Your task to perform on an android device: find photos in the google photos app Image 0: 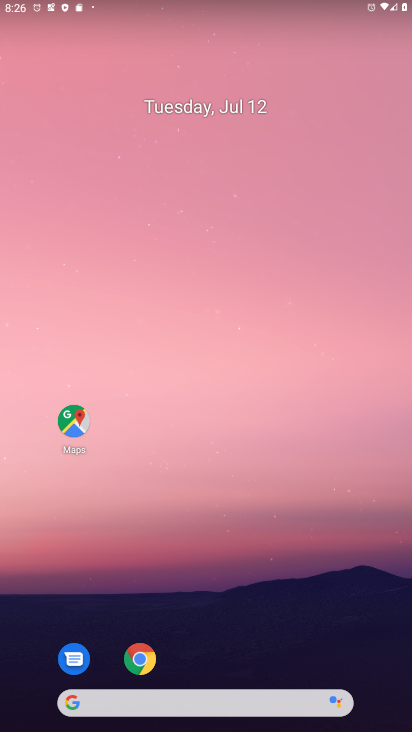
Step 0: drag from (193, 705) to (277, 160)
Your task to perform on an android device: find photos in the google photos app Image 1: 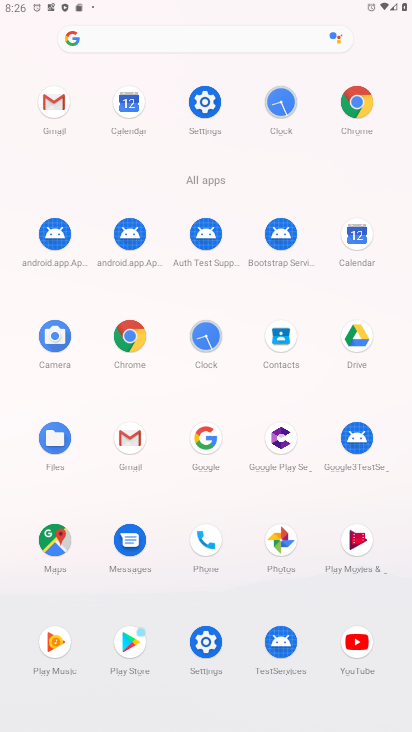
Step 1: click (280, 540)
Your task to perform on an android device: find photos in the google photos app Image 2: 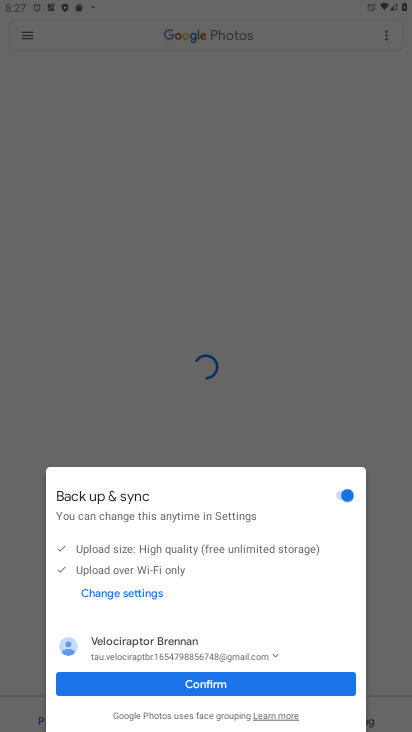
Step 2: click (203, 681)
Your task to perform on an android device: find photos in the google photos app Image 3: 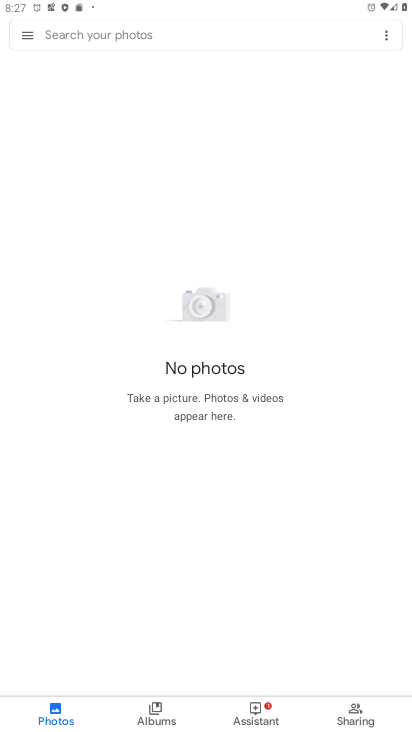
Step 3: click (28, 35)
Your task to perform on an android device: find photos in the google photos app Image 4: 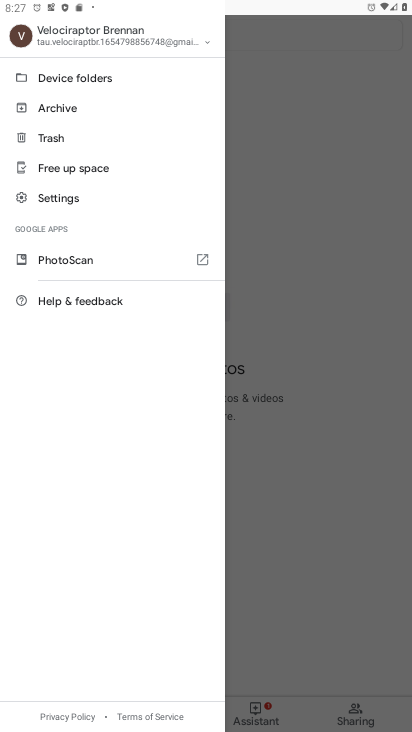
Step 4: click (254, 264)
Your task to perform on an android device: find photos in the google photos app Image 5: 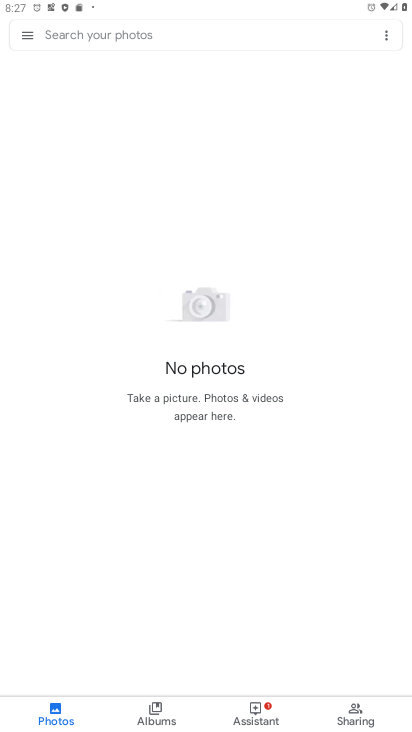
Step 5: click (157, 712)
Your task to perform on an android device: find photos in the google photos app Image 6: 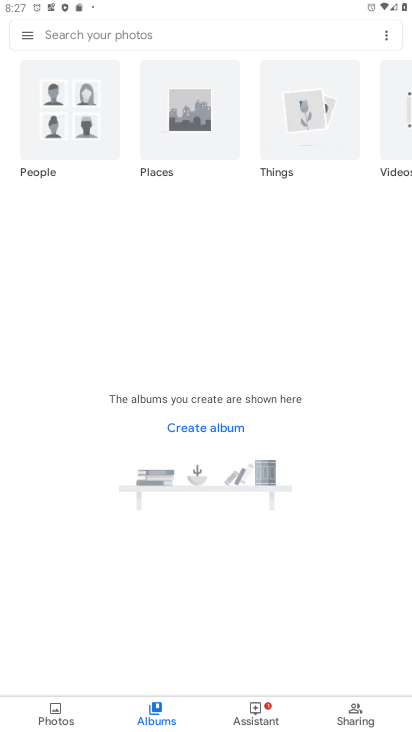
Step 6: click (181, 41)
Your task to perform on an android device: find photos in the google photos app Image 7: 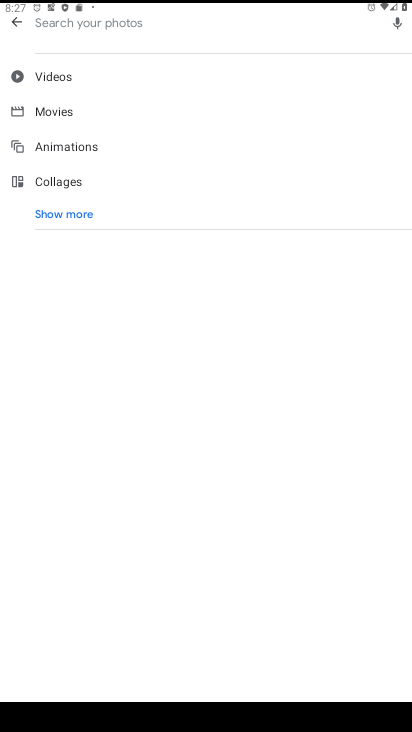
Step 7: click (69, 216)
Your task to perform on an android device: find photos in the google photos app Image 8: 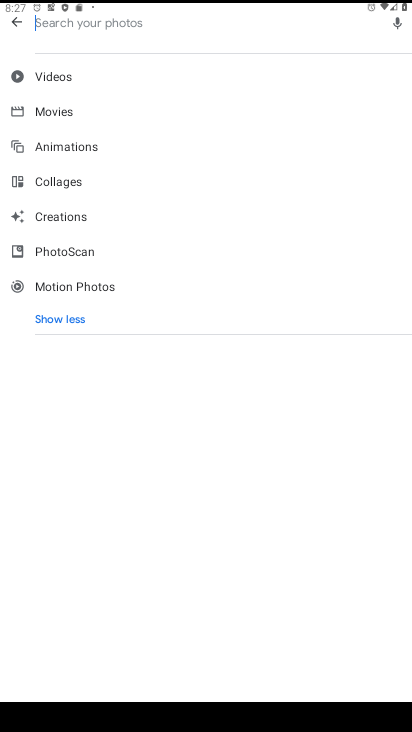
Step 8: click (61, 174)
Your task to perform on an android device: find photos in the google photos app Image 9: 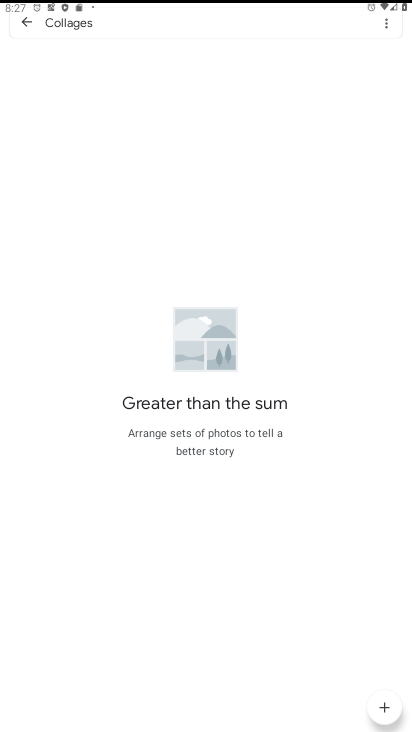
Step 9: press back button
Your task to perform on an android device: find photos in the google photos app Image 10: 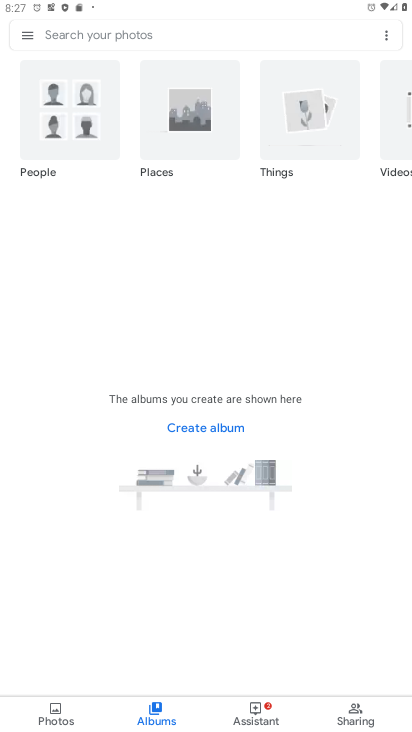
Step 10: click (76, 125)
Your task to perform on an android device: find photos in the google photos app Image 11: 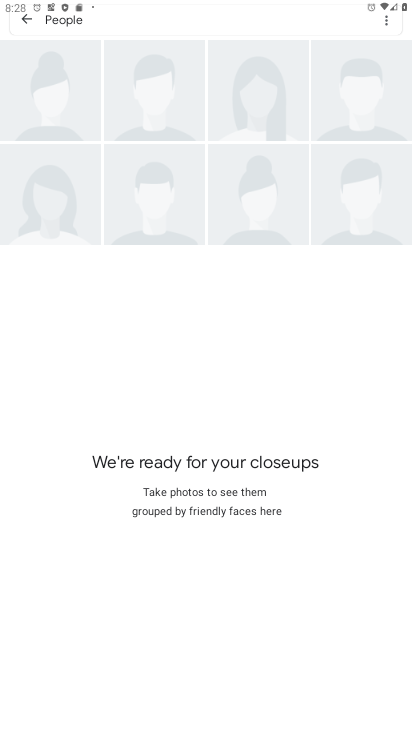
Step 11: task complete